Your task to perform on an android device: turn pop-ups on in chrome Image 0: 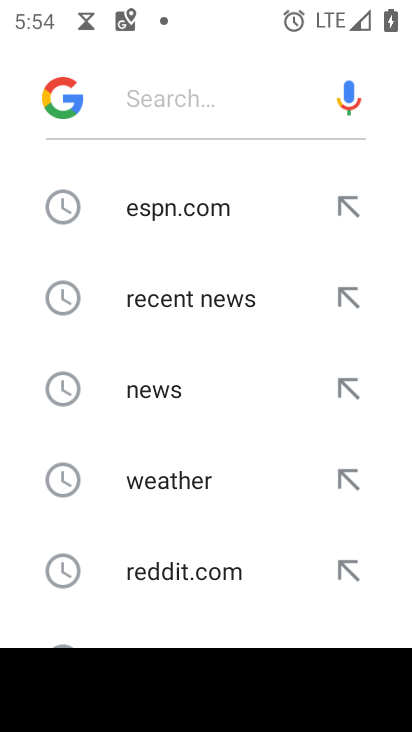
Step 0: press home button
Your task to perform on an android device: turn pop-ups on in chrome Image 1: 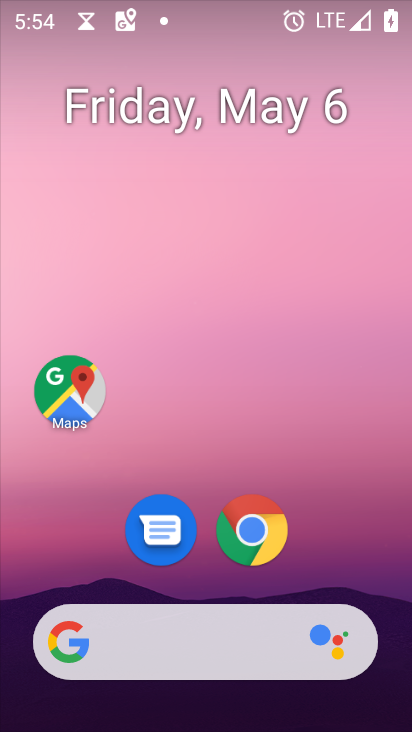
Step 1: click (250, 538)
Your task to perform on an android device: turn pop-ups on in chrome Image 2: 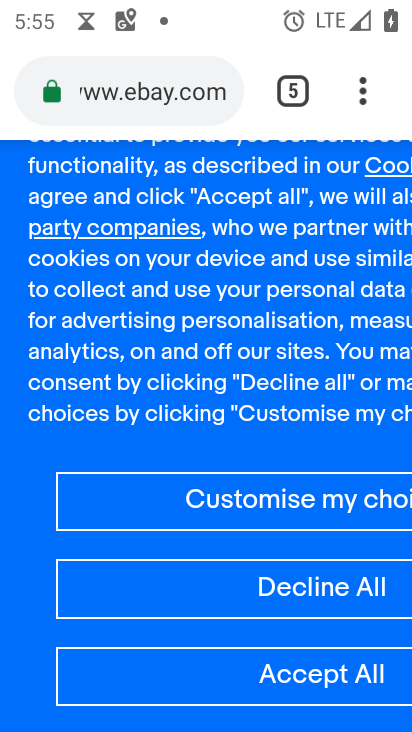
Step 2: click (356, 98)
Your task to perform on an android device: turn pop-ups on in chrome Image 3: 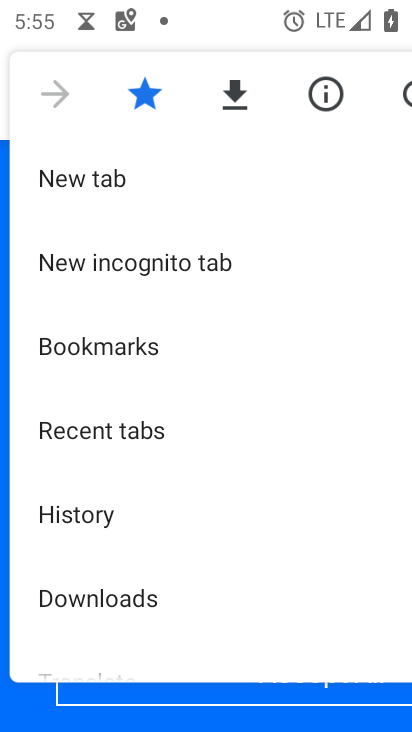
Step 3: drag from (247, 604) to (164, 144)
Your task to perform on an android device: turn pop-ups on in chrome Image 4: 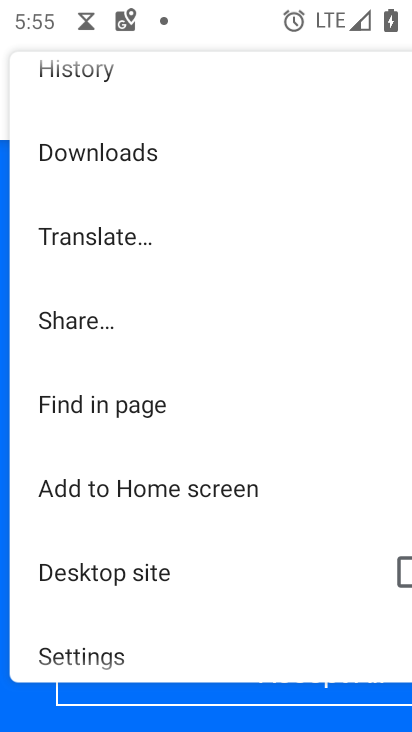
Step 4: click (142, 660)
Your task to perform on an android device: turn pop-ups on in chrome Image 5: 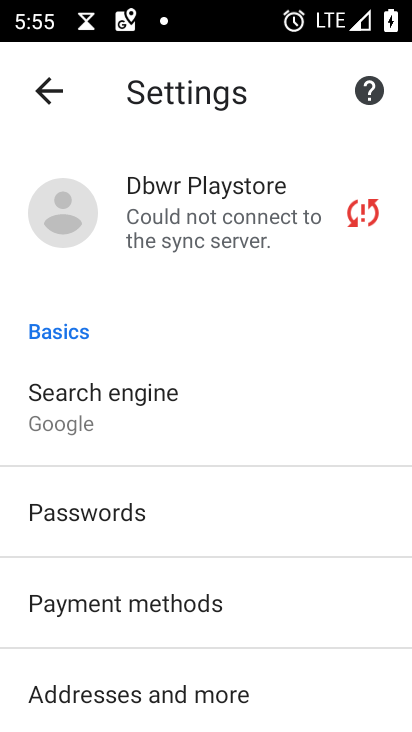
Step 5: drag from (237, 655) to (181, 193)
Your task to perform on an android device: turn pop-ups on in chrome Image 6: 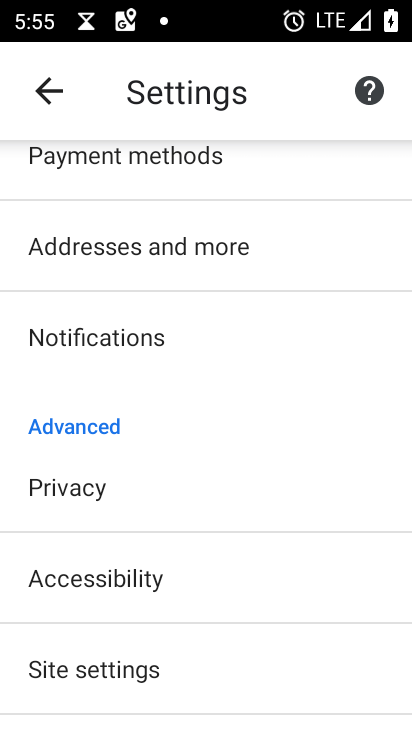
Step 6: click (187, 671)
Your task to perform on an android device: turn pop-ups on in chrome Image 7: 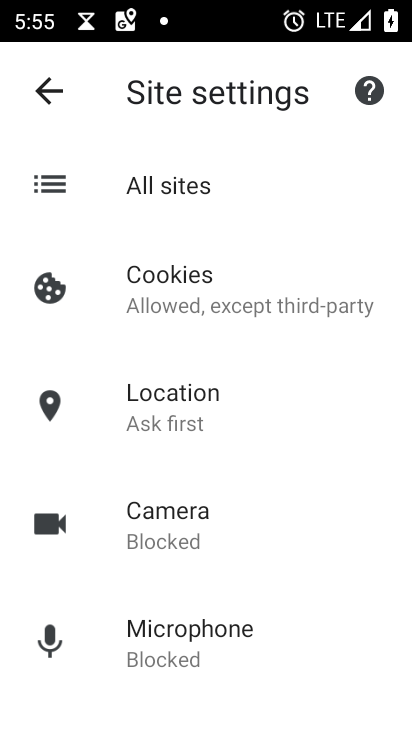
Step 7: drag from (277, 649) to (197, 150)
Your task to perform on an android device: turn pop-ups on in chrome Image 8: 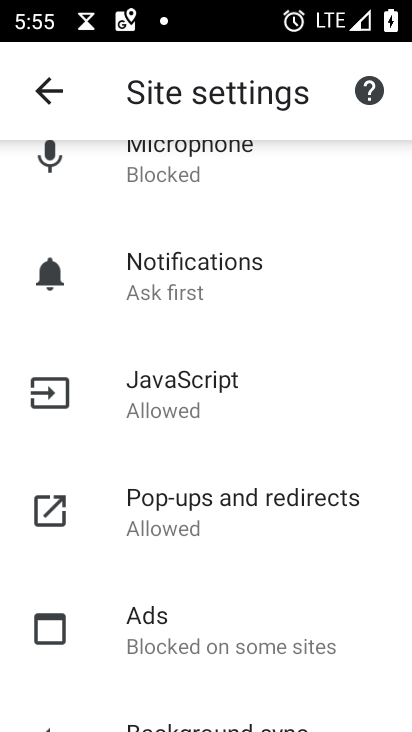
Step 8: click (203, 500)
Your task to perform on an android device: turn pop-ups on in chrome Image 9: 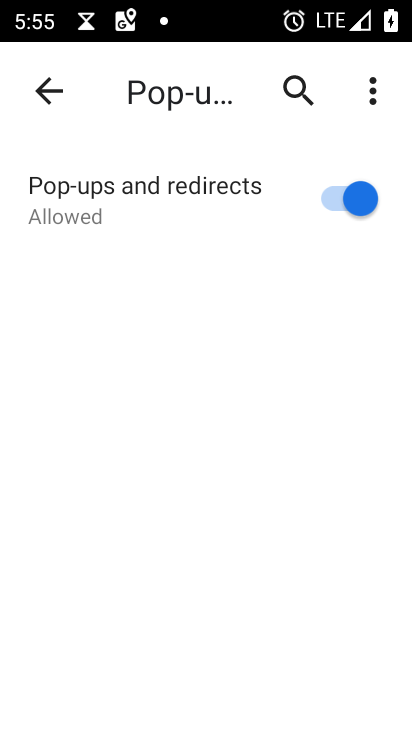
Step 9: task complete